Your task to perform on an android device: Show me the alarms in the clock app Image 0: 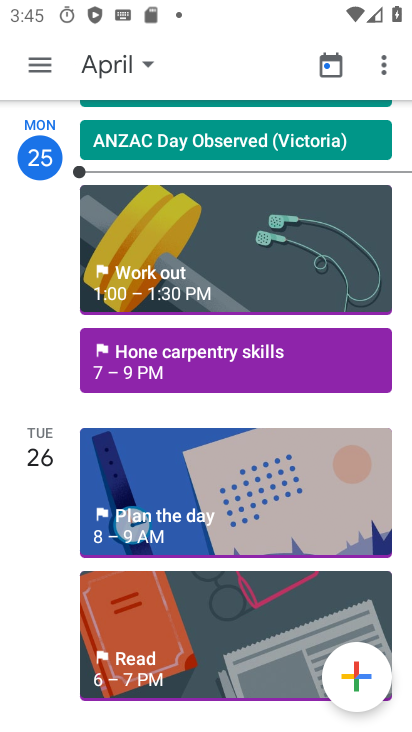
Step 0: press home button
Your task to perform on an android device: Show me the alarms in the clock app Image 1: 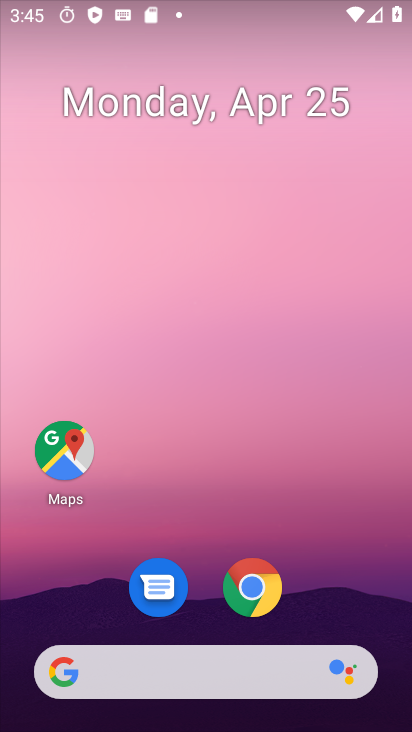
Step 1: drag from (356, 552) to (236, 96)
Your task to perform on an android device: Show me the alarms in the clock app Image 2: 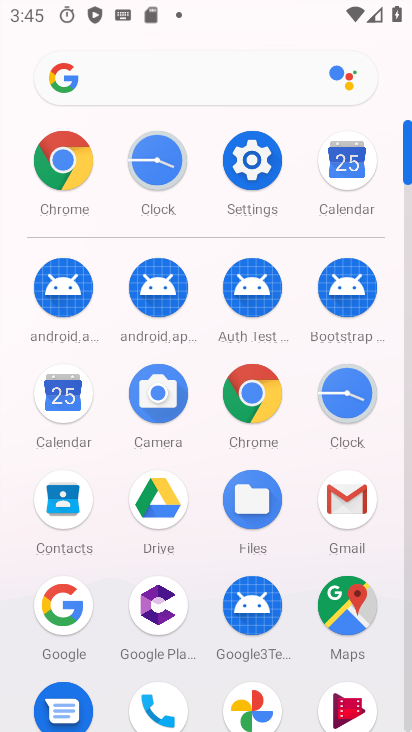
Step 2: click (351, 397)
Your task to perform on an android device: Show me the alarms in the clock app Image 3: 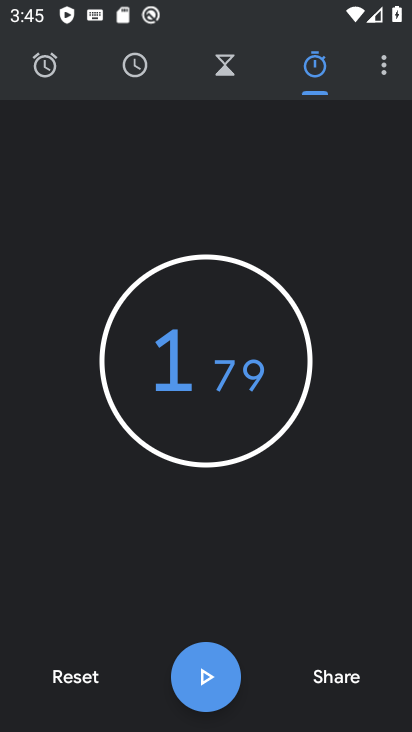
Step 3: click (387, 68)
Your task to perform on an android device: Show me the alarms in the clock app Image 4: 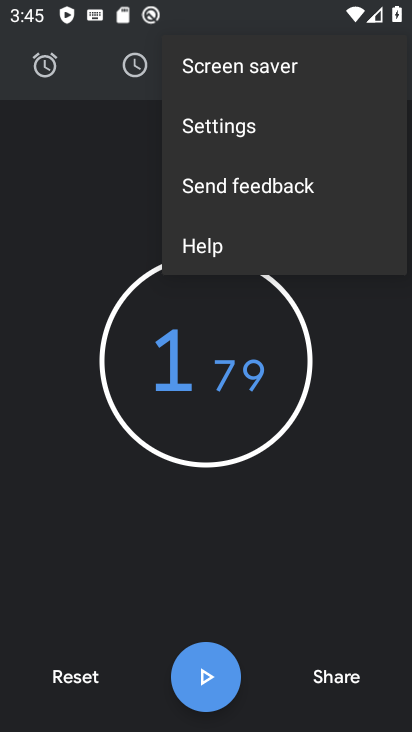
Step 4: click (220, 108)
Your task to perform on an android device: Show me the alarms in the clock app Image 5: 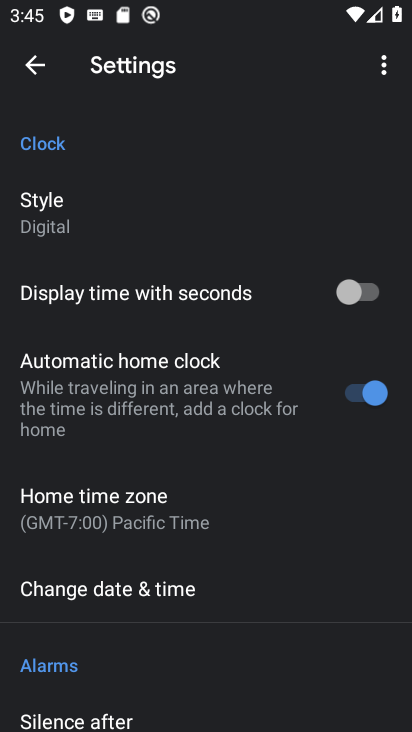
Step 5: click (39, 55)
Your task to perform on an android device: Show me the alarms in the clock app Image 6: 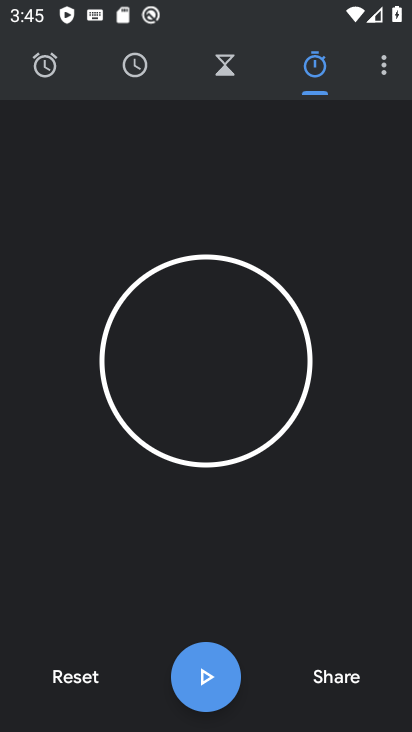
Step 6: click (39, 55)
Your task to perform on an android device: Show me the alarms in the clock app Image 7: 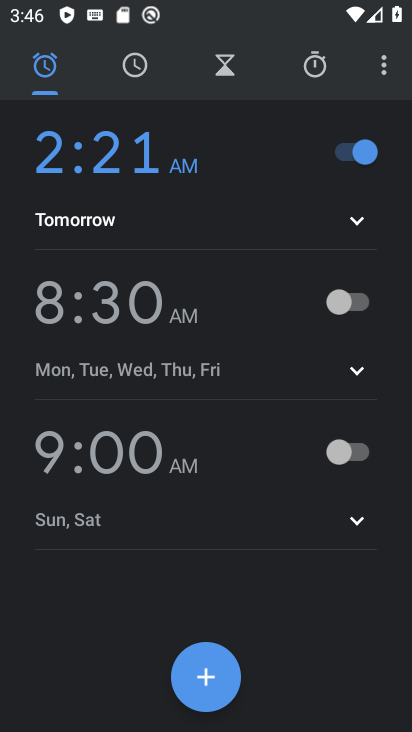
Step 7: task complete